Your task to perform on an android device: open app "McDonald's" Image 0: 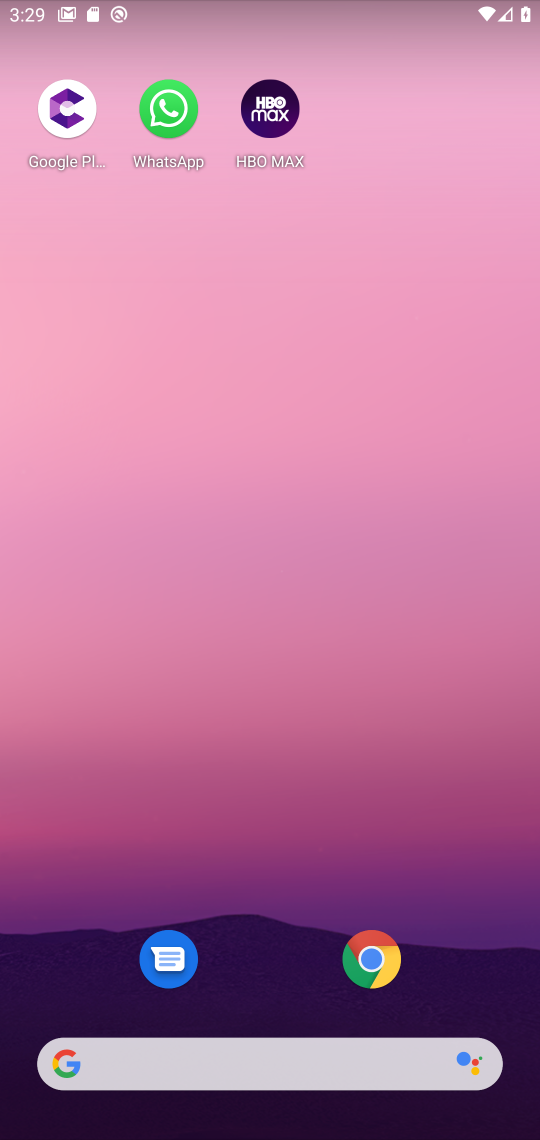
Step 0: drag from (243, 1055) to (476, 202)
Your task to perform on an android device: open app "McDonald's" Image 1: 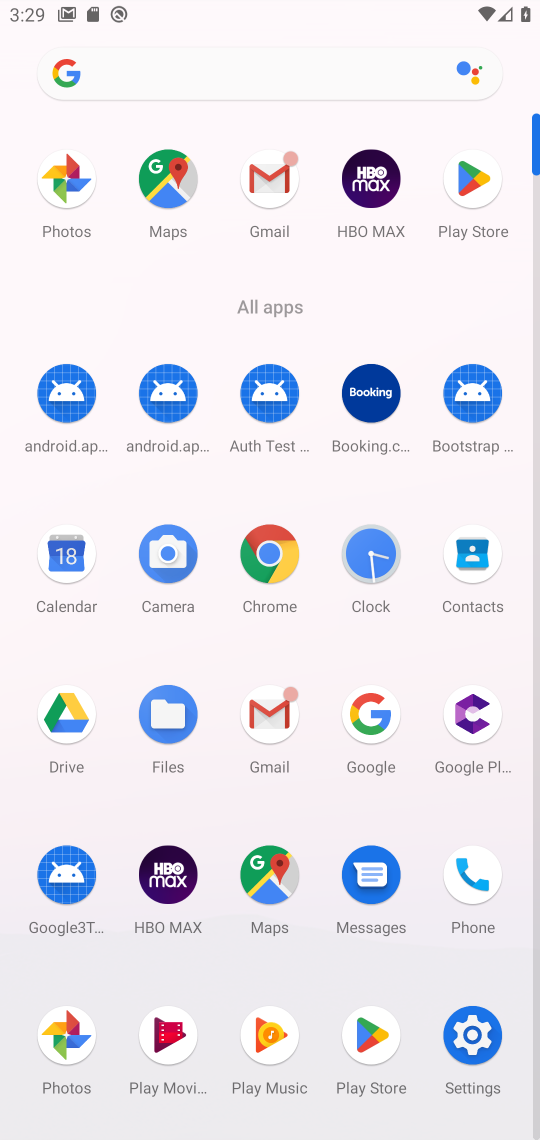
Step 1: task complete